Your task to perform on an android device: Is it going to rain tomorrow? Image 0: 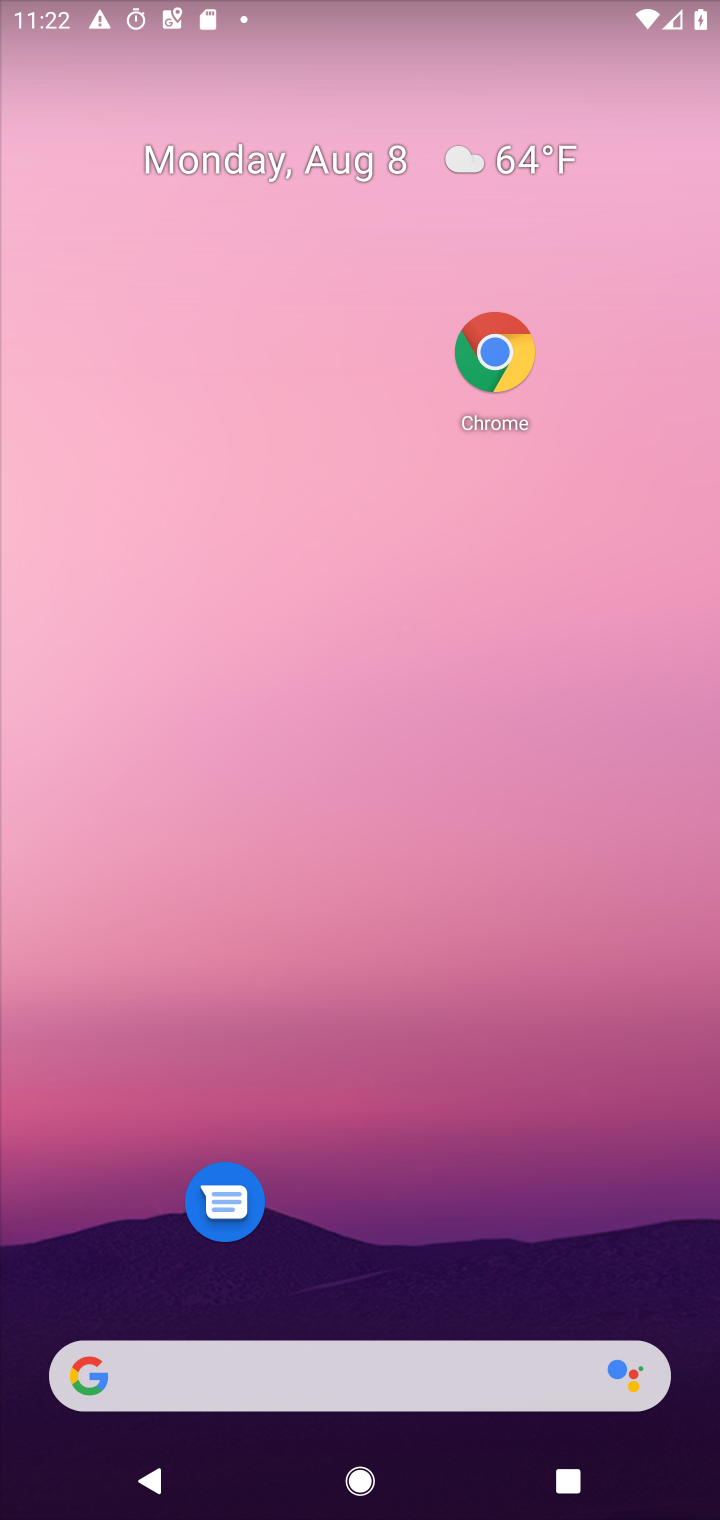
Step 0: drag from (418, 1356) to (407, 361)
Your task to perform on an android device: Is it going to rain tomorrow? Image 1: 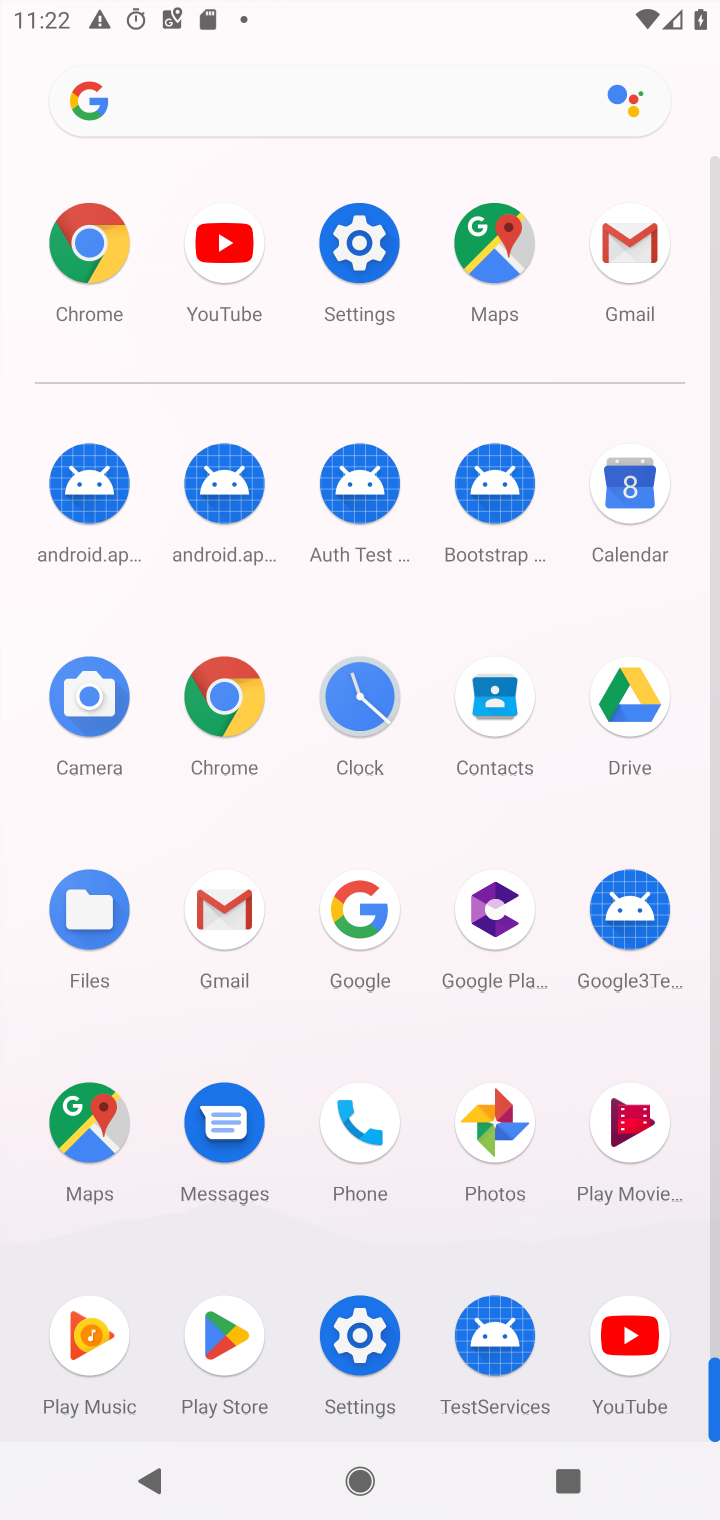
Step 1: click (354, 956)
Your task to perform on an android device: Is it going to rain tomorrow? Image 2: 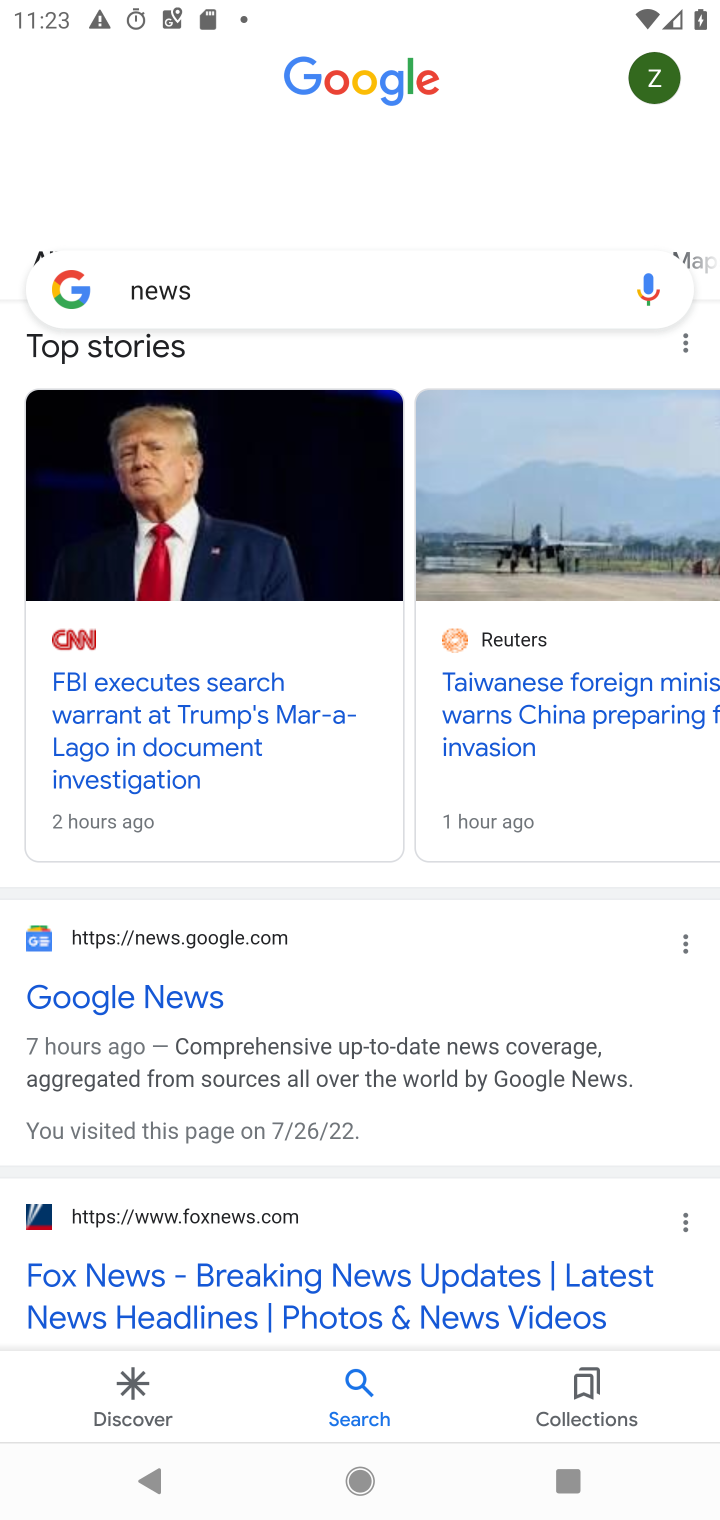
Step 2: click (445, 300)
Your task to perform on an android device: Is it going to rain tomorrow? Image 3: 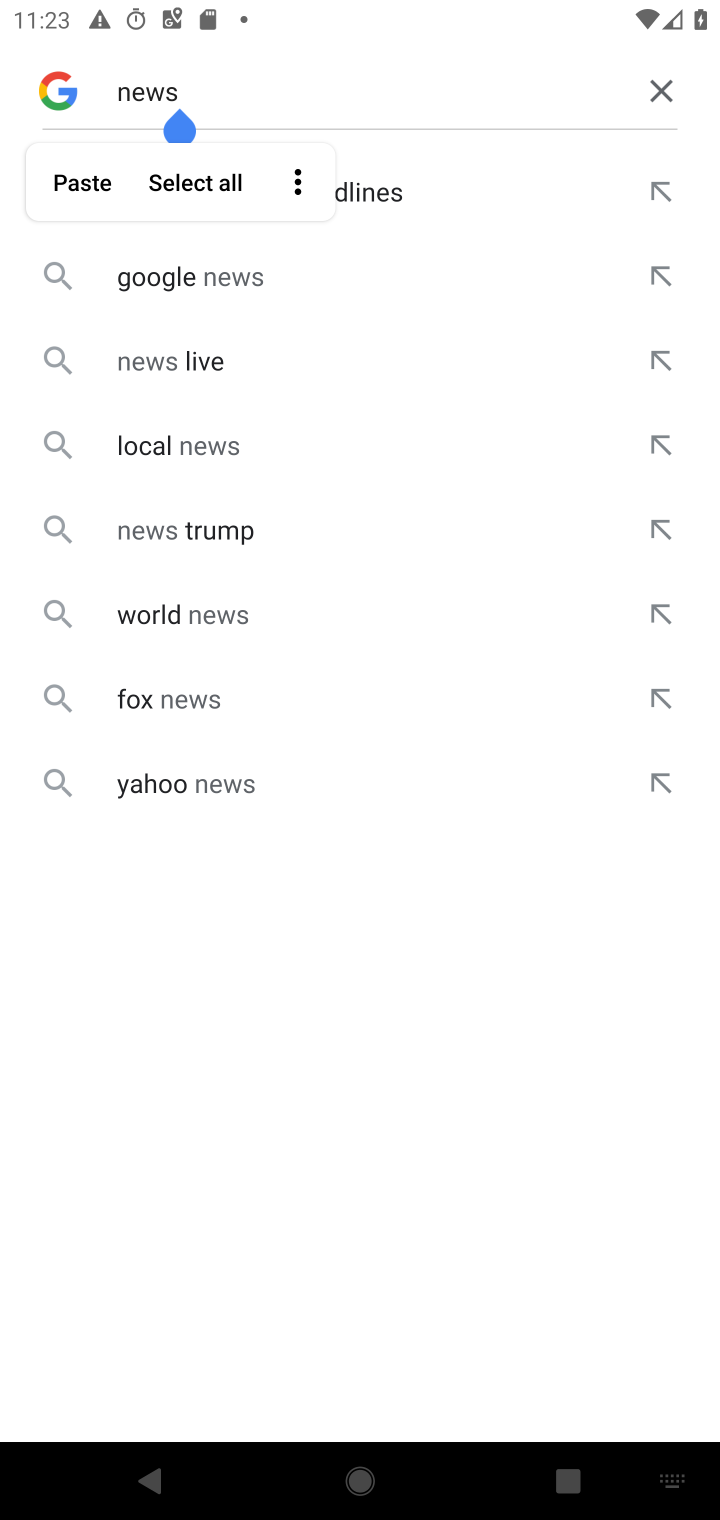
Step 3: click (663, 101)
Your task to perform on an android device: Is it going to rain tomorrow? Image 4: 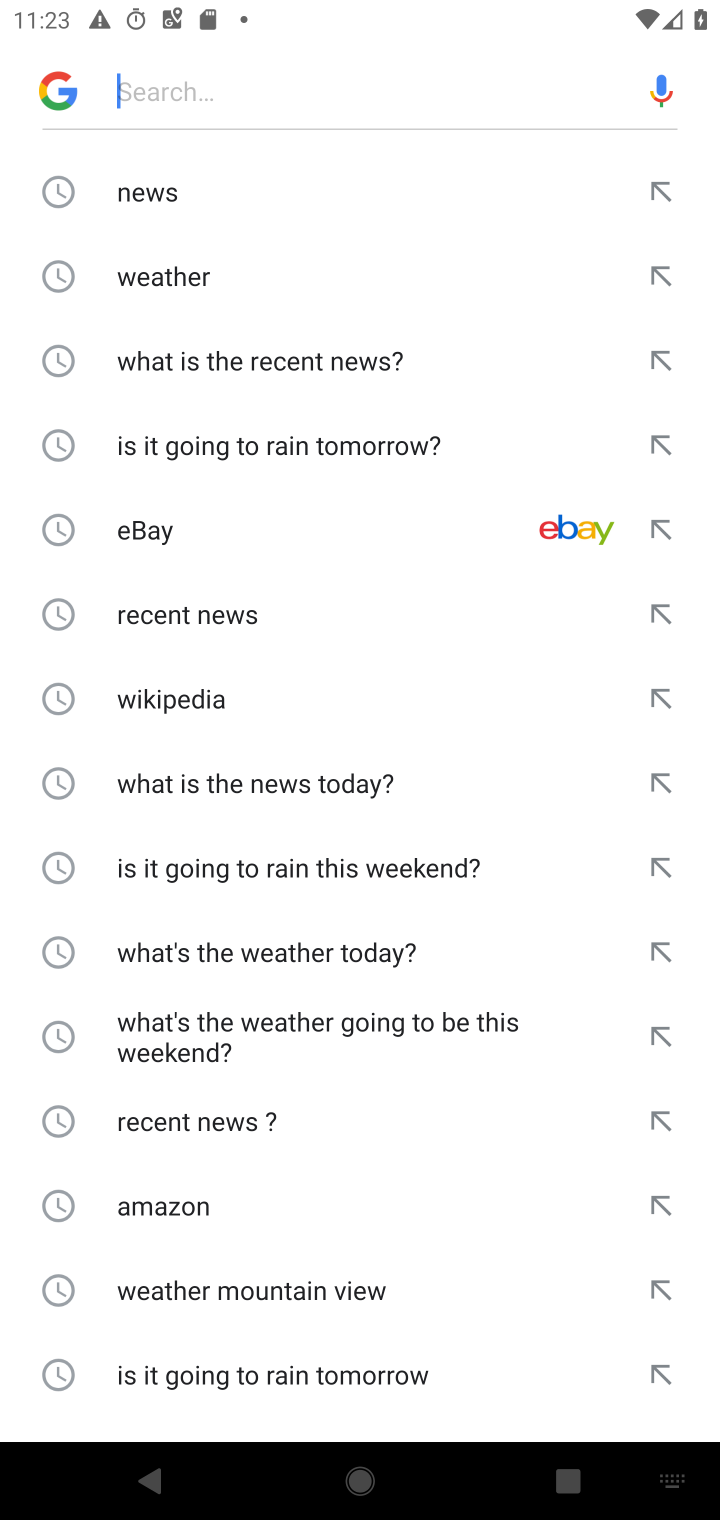
Step 4: click (260, 290)
Your task to perform on an android device: Is it going to rain tomorrow? Image 5: 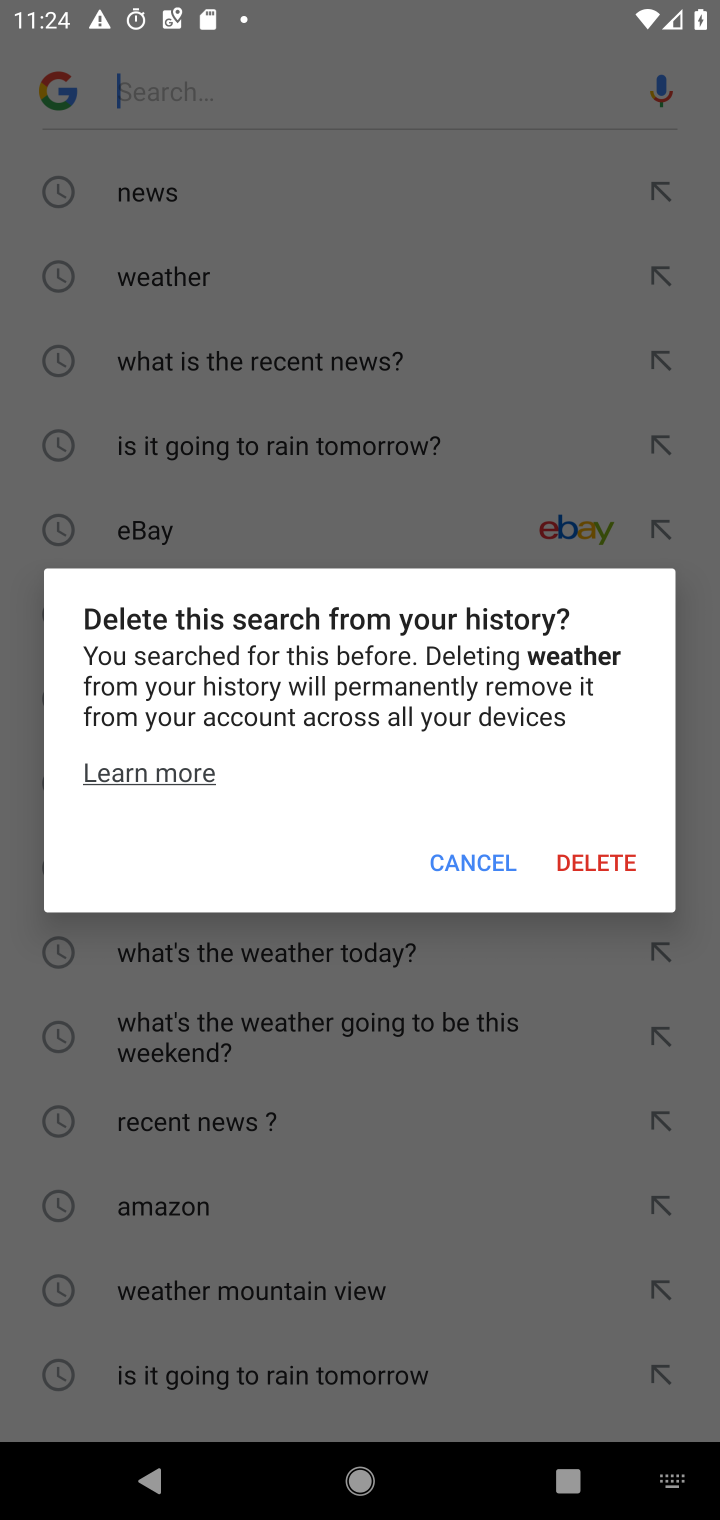
Step 5: click (468, 851)
Your task to perform on an android device: Is it going to rain tomorrow? Image 6: 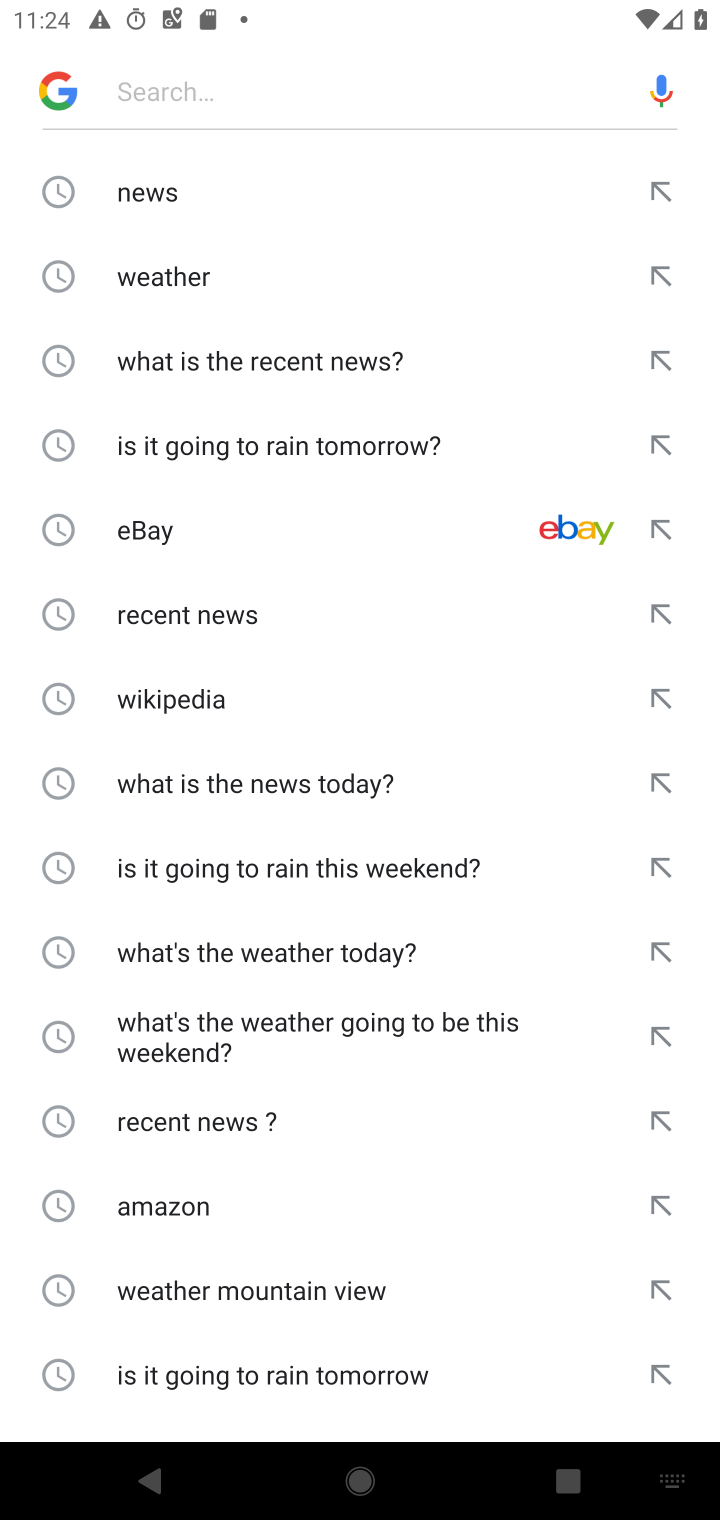
Step 6: click (225, 285)
Your task to perform on an android device: Is it going to rain tomorrow? Image 7: 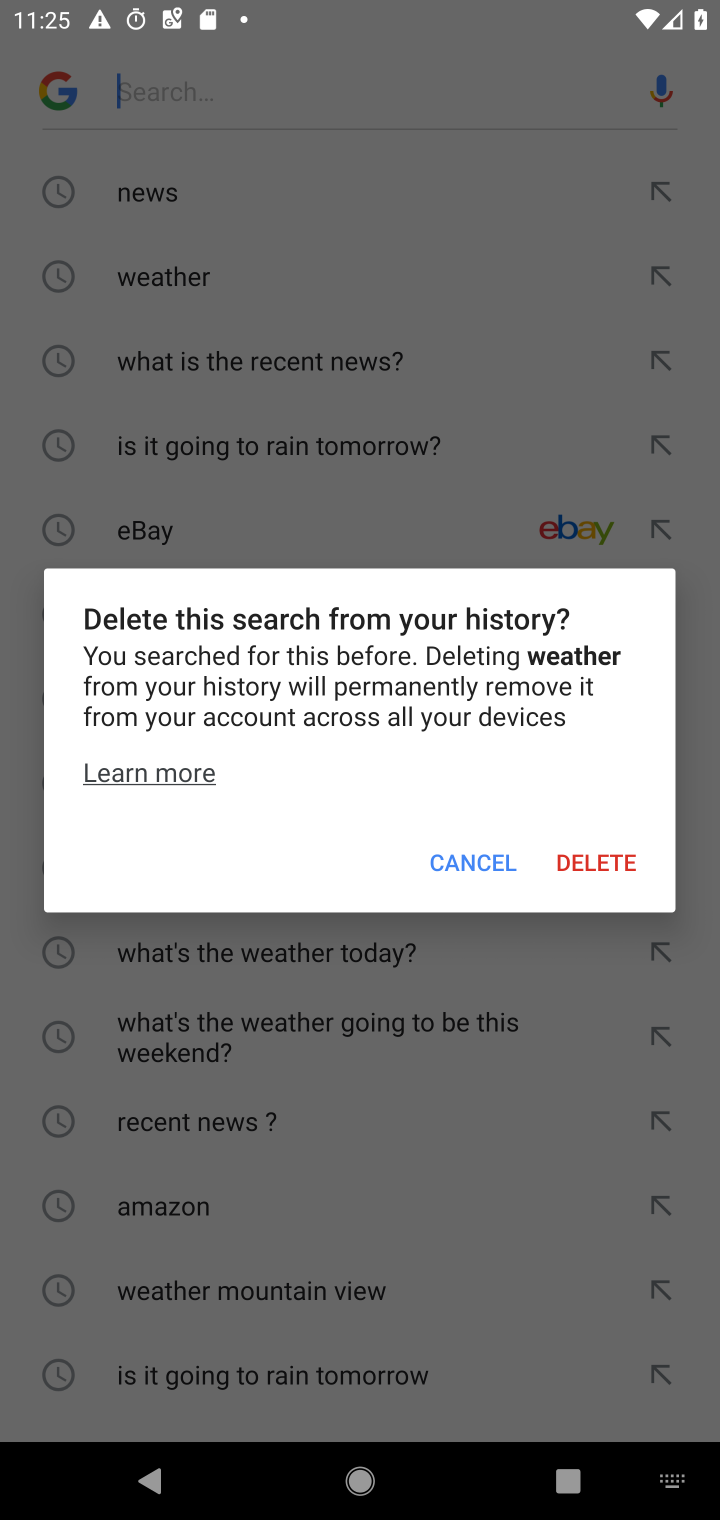
Step 7: click (457, 857)
Your task to perform on an android device: Is it going to rain tomorrow? Image 8: 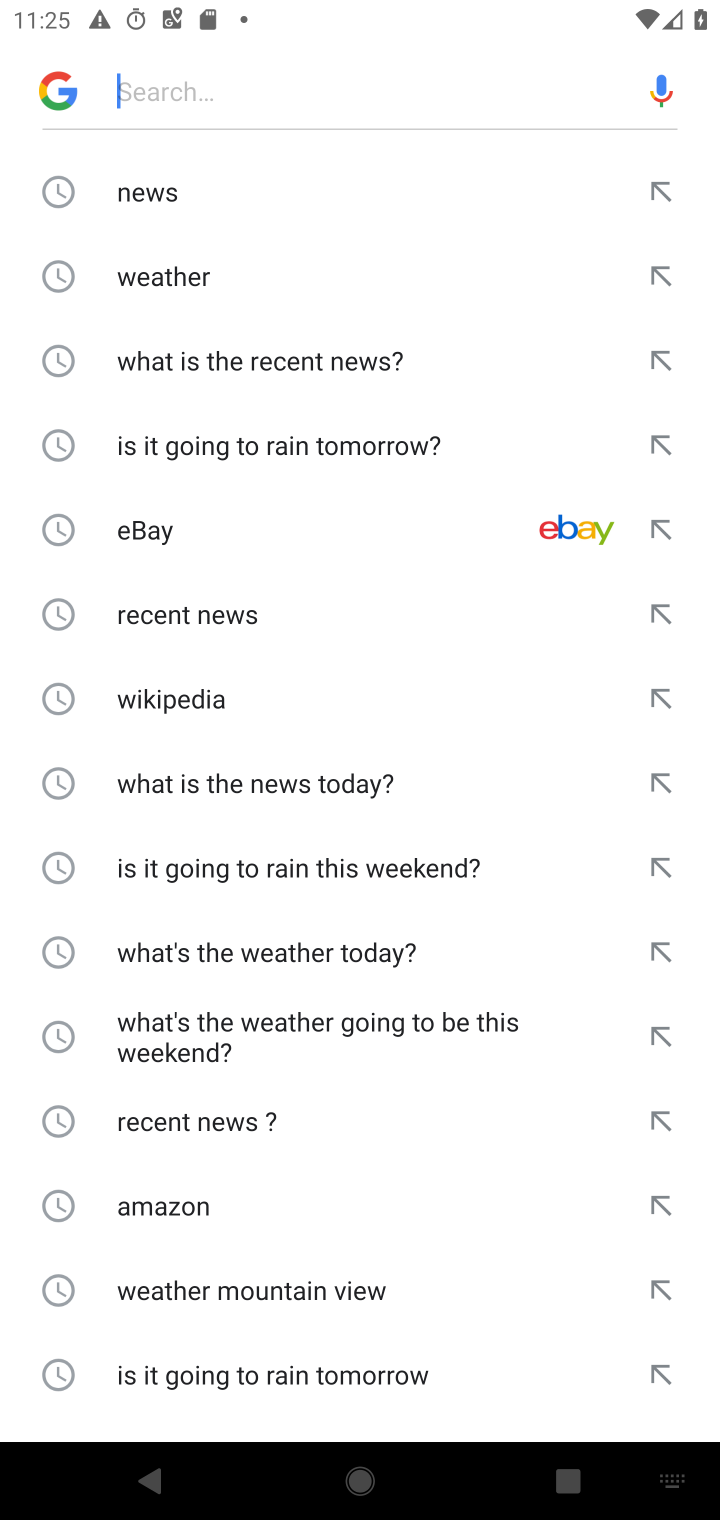
Step 8: click (574, 270)
Your task to perform on an android device: Is it going to rain tomorrow? Image 9: 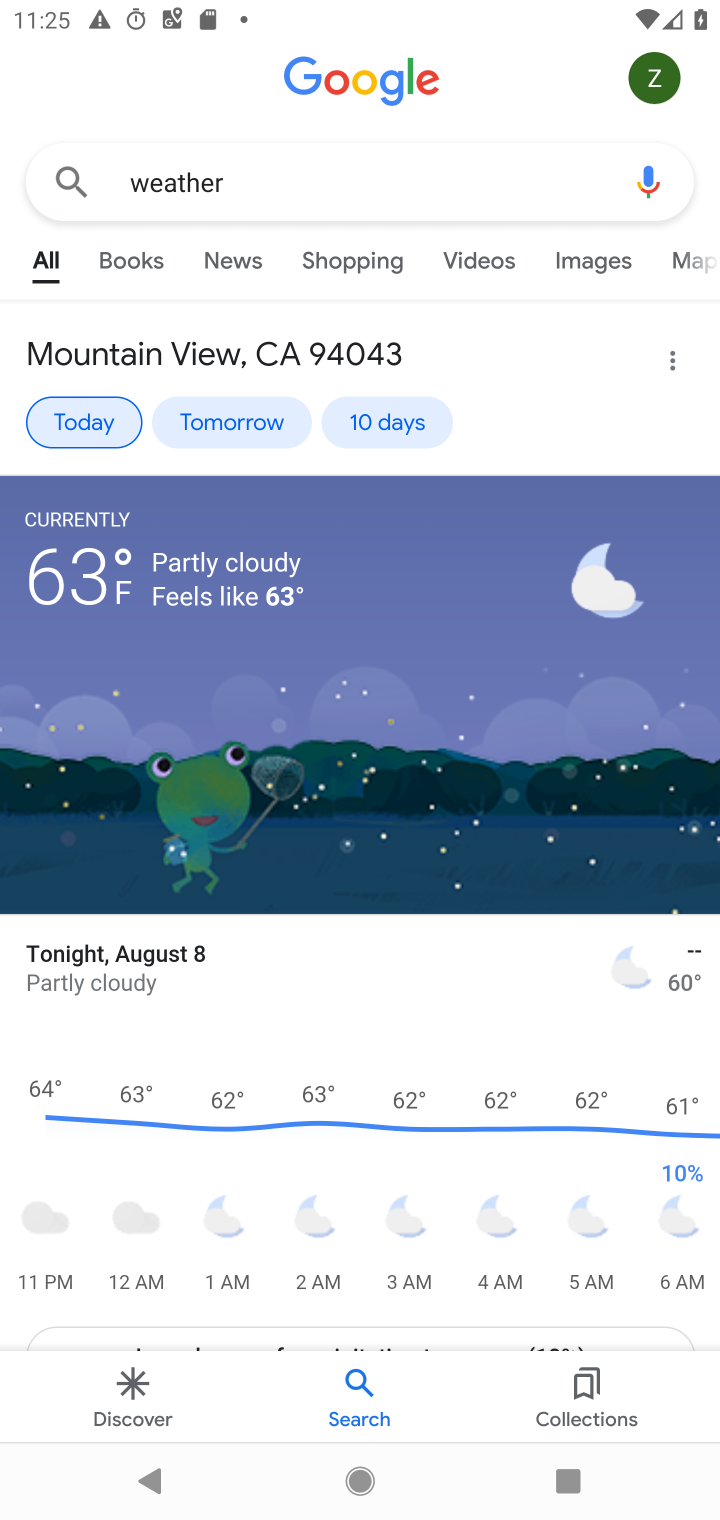
Step 9: task complete